Your task to perform on an android device: open chrome privacy settings Image 0: 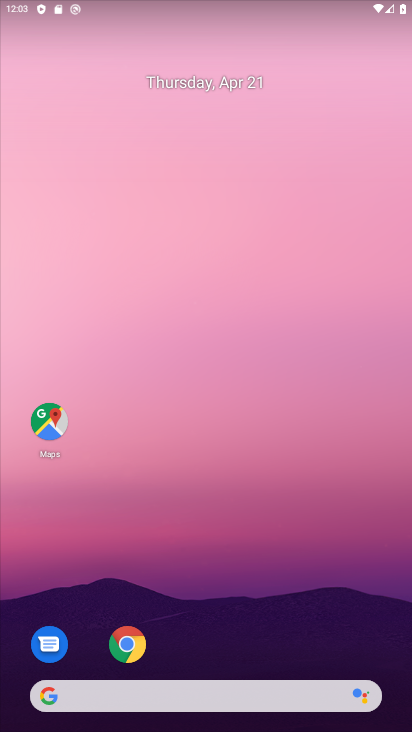
Step 0: drag from (235, 534) to (304, 102)
Your task to perform on an android device: open chrome privacy settings Image 1: 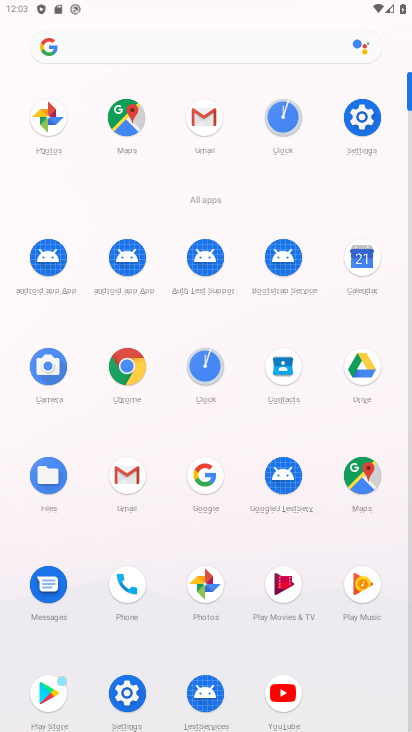
Step 1: click (115, 355)
Your task to perform on an android device: open chrome privacy settings Image 2: 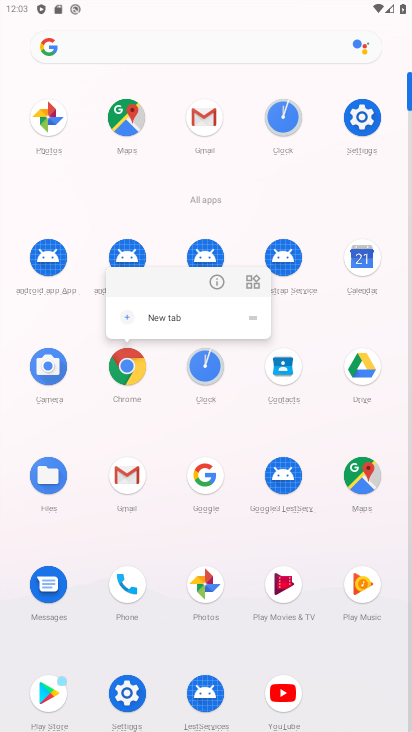
Step 2: click (130, 363)
Your task to perform on an android device: open chrome privacy settings Image 3: 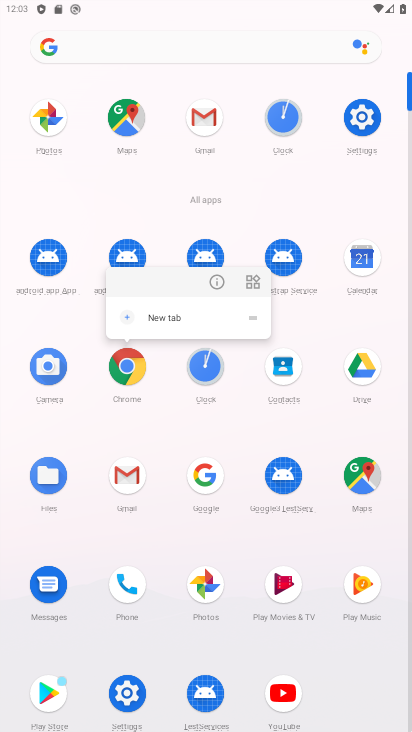
Step 3: click (131, 365)
Your task to perform on an android device: open chrome privacy settings Image 4: 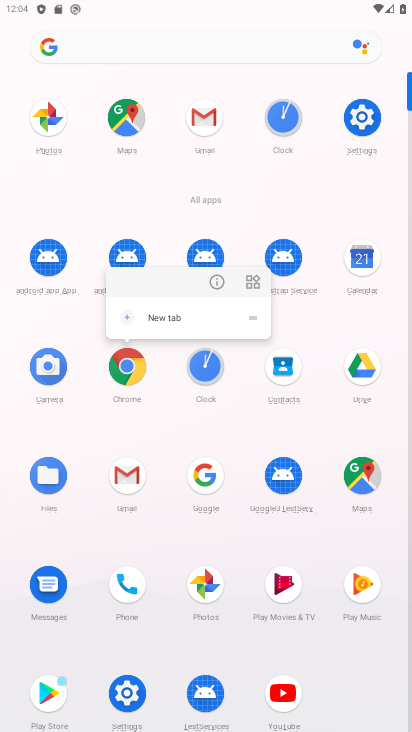
Step 4: click (357, 111)
Your task to perform on an android device: open chrome privacy settings Image 5: 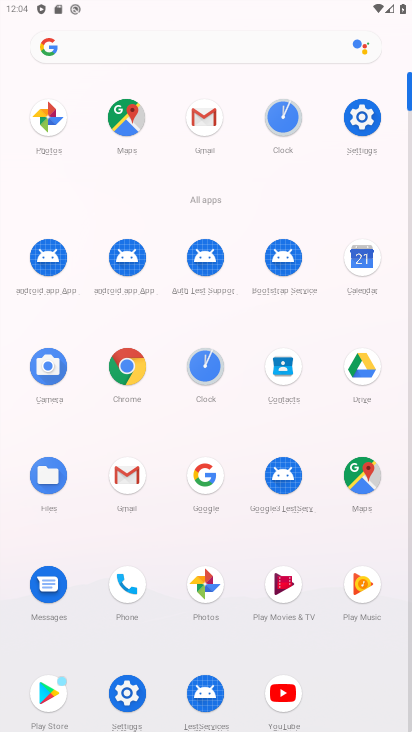
Step 5: click (131, 359)
Your task to perform on an android device: open chrome privacy settings Image 6: 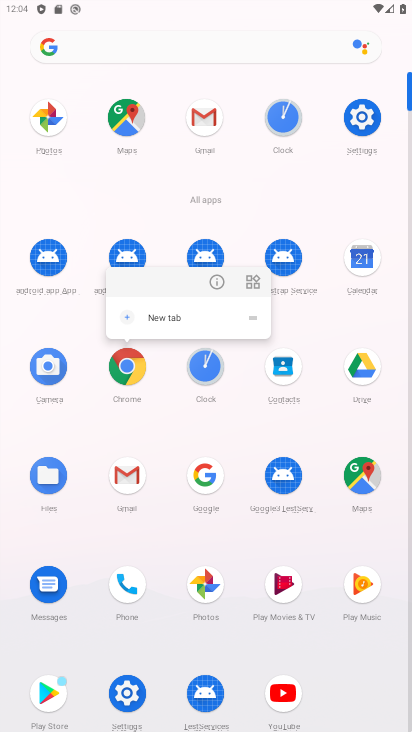
Step 6: click (131, 375)
Your task to perform on an android device: open chrome privacy settings Image 7: 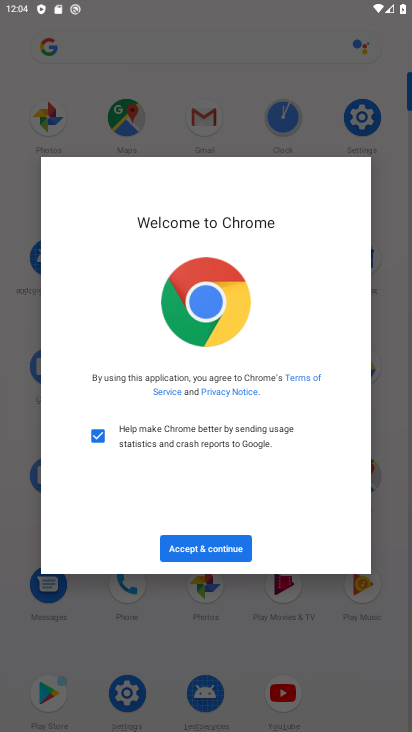
Step 7: click (197, 548)
Your task to perform on an android device: open chrome privacy settings Image 8: 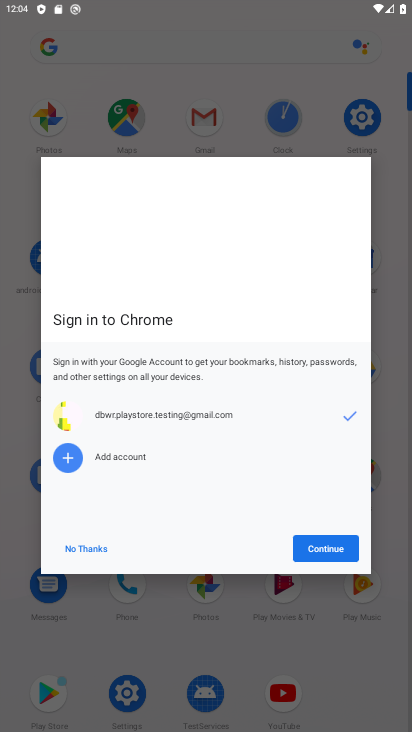
Step 8: click (306, 544)
Your task to perform on an android device: open chrome privacy settings Image 9: 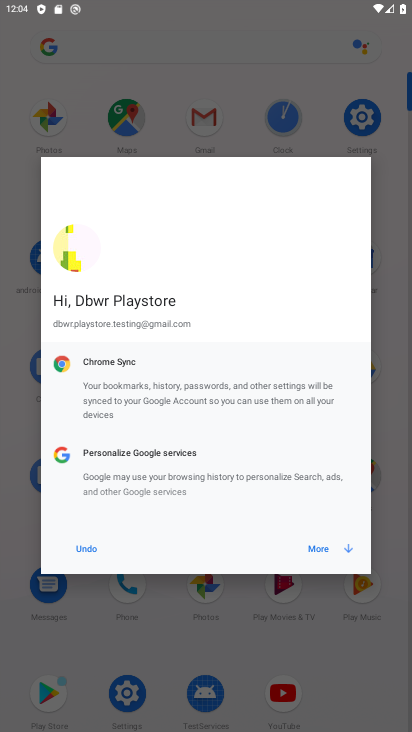
Step 9: click (325, 549)
Your task to perform on an android device: open chrome privacy settings Image 10: 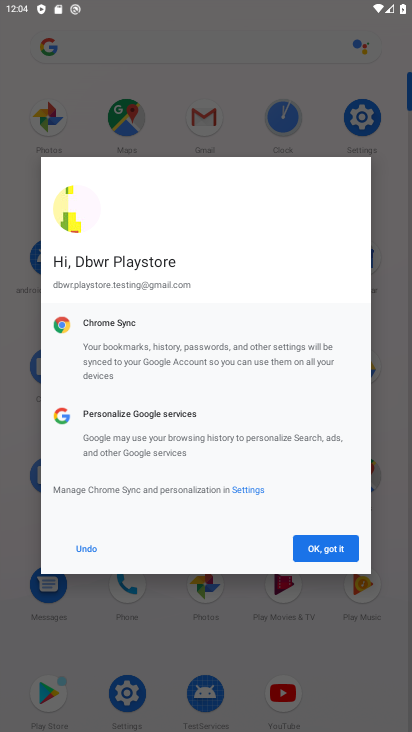
Step 10: click (325, 549)
Your task to perform on an android device: open chrome privacy settings Image 11: 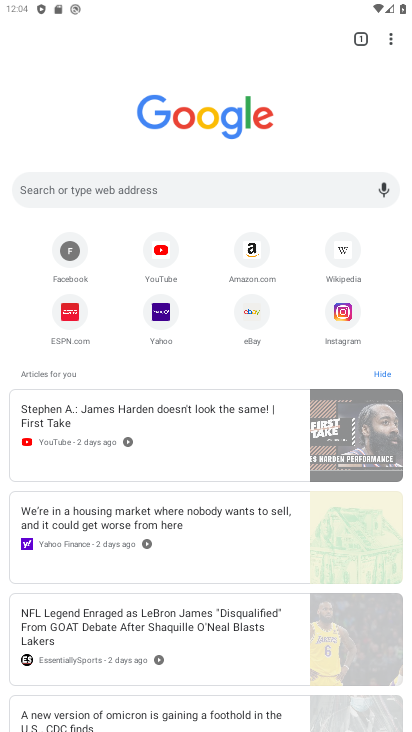
Step 11: drag from (391, 34) to (264, 364)
Your task to perform on an android device: open chrome privacy settings Image 12: 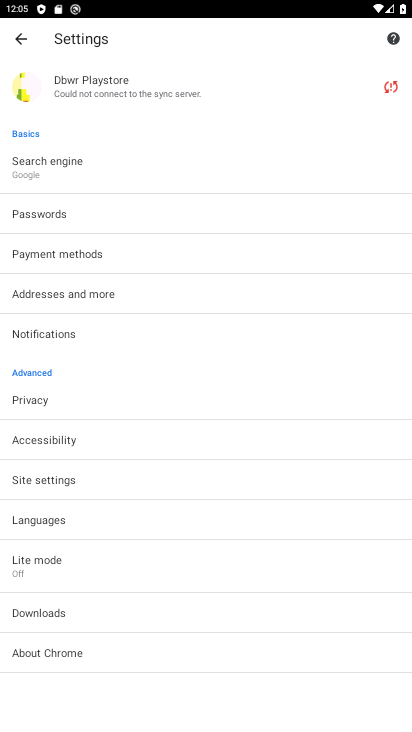
Step 12: drag from (96, 574) to (213, 167)
Your task to perform on an android device: open chrome privacy settings Image 13: 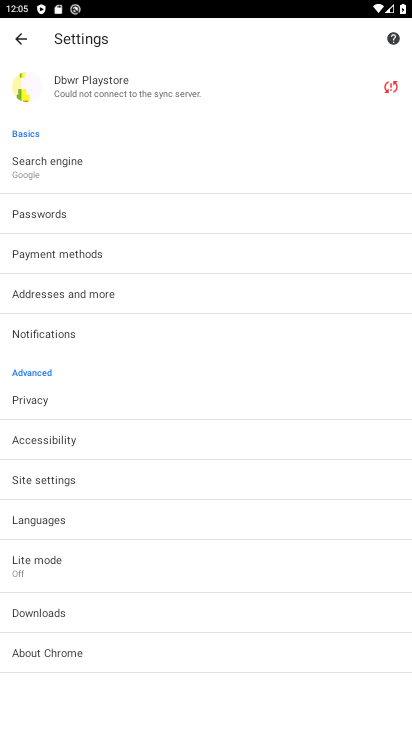
Step 13: click (43, 402)
Your task to perform on an android device: open chrome privacy settings Image 14: 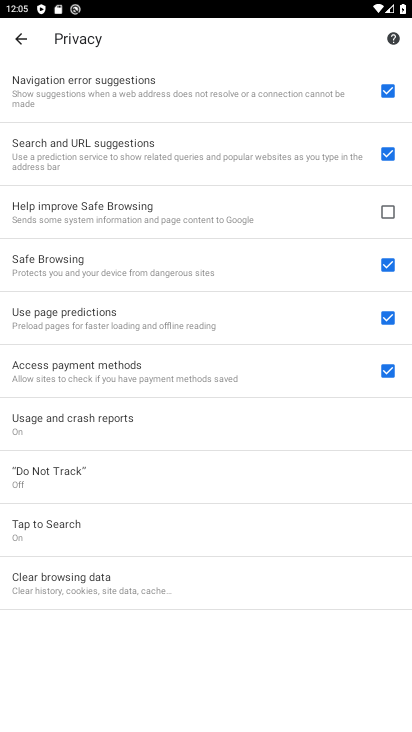
Step 14: task complete